Your task to perform on an android device: turn pop-ups on in chrome Image 0: 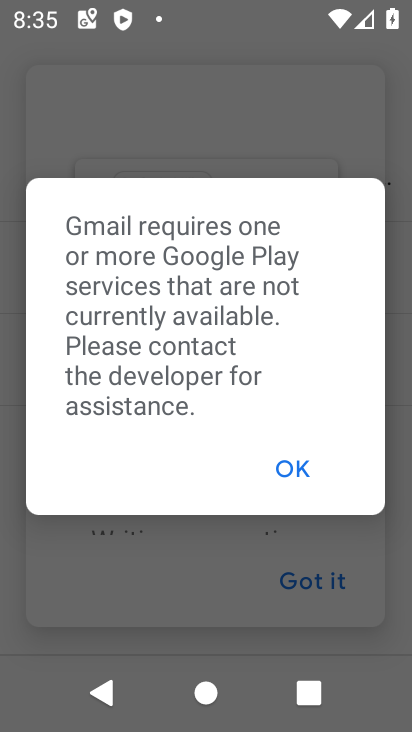
Step 0: press home button
Your task to perform on an android device: turn pop-ups on in chrome Image 1: 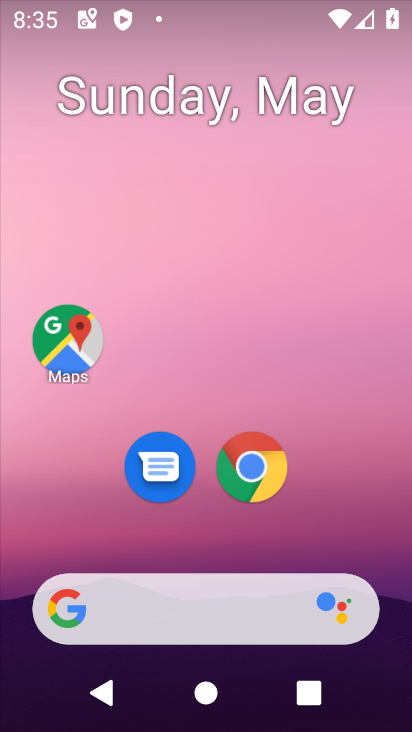
Step 1: click (255, 470)
Your task to perform on an android device: turn pop-ups on in chrome Image 2: 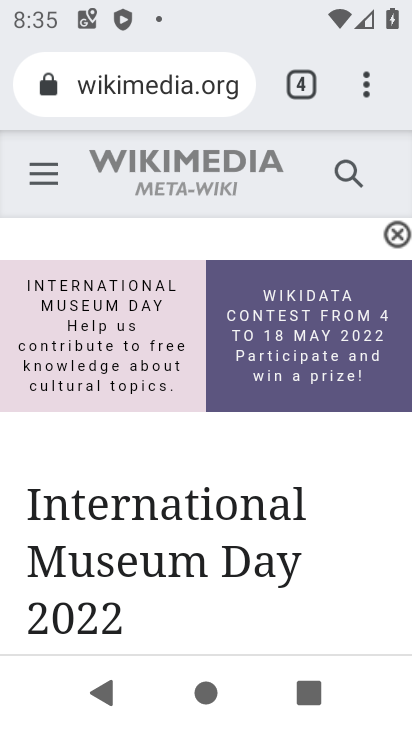
Step 2: click (362, 72)
Your task to perform on an android device: turn pop-ups on in chrome Image 3: 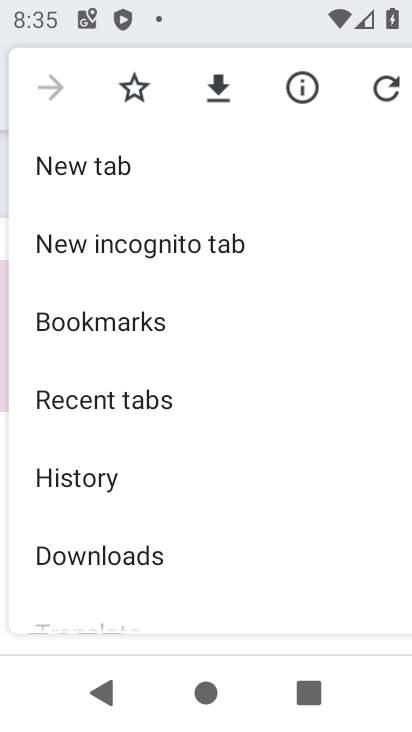
Step 3: drag from (71, 598) to (88, 107)
Your task to perform on an android device: turn pop-ups on in chrome Image 4: 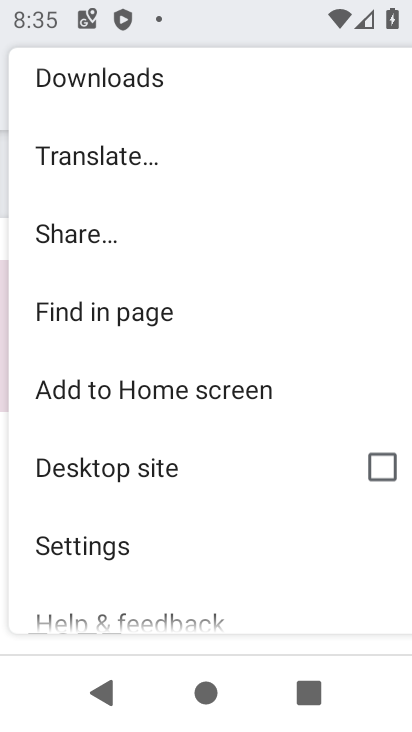
Step 4: click (101, 518)
Your task to perform on an android device: turn pop-ups on in chrome Image 5: 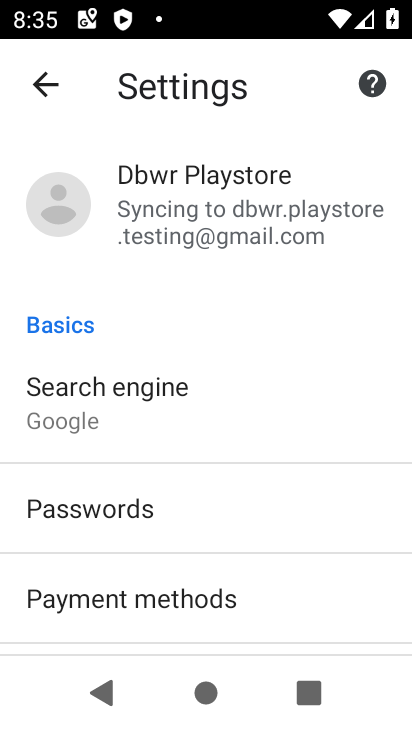
Step 5: drag from (101, 518) to (141, 270)
Your task to perform on an android device: turn pop-ups on in chrome Image 6: 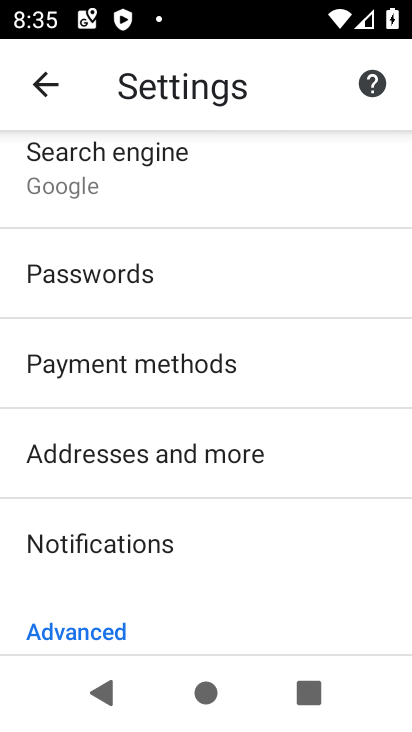
Step 6: drag from (142, 601) to (125, 220)
Your task to perform on an android device: turn pop-ups on in chrome Image 7: 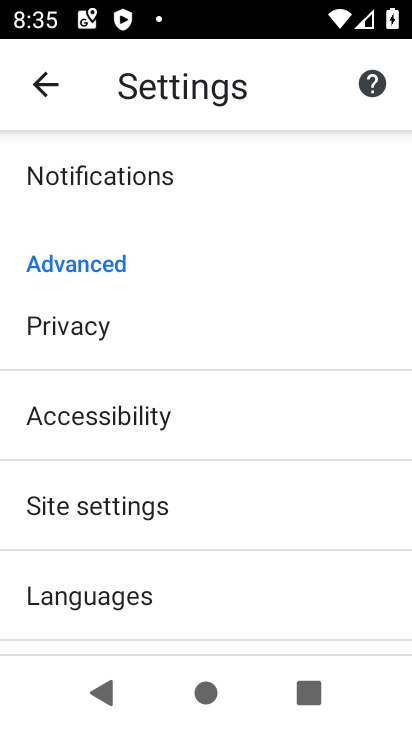
Step 7: click (168, 512)
Your task to perform on an android device: turn pop-ups on in chrome Image 8: 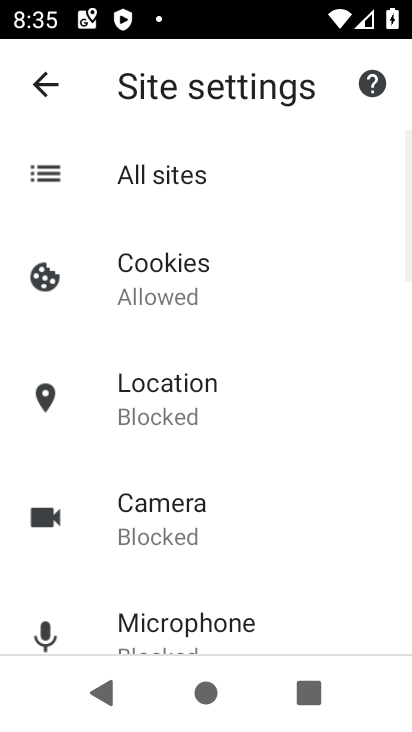
Step 8: drag from (177, 572) to (221, 204)
Your task to perform on an android device: turn pop-ups on in chrome Image 9: 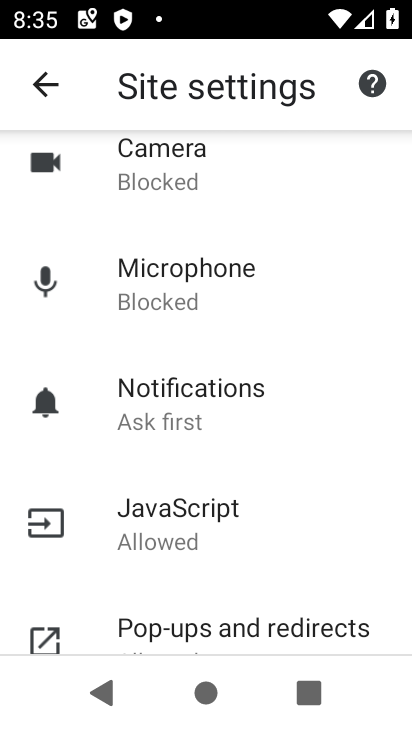
Step 9: click (148, 626)
Your task to perform on an android device: turn pop-ups on in chrome Image 10: 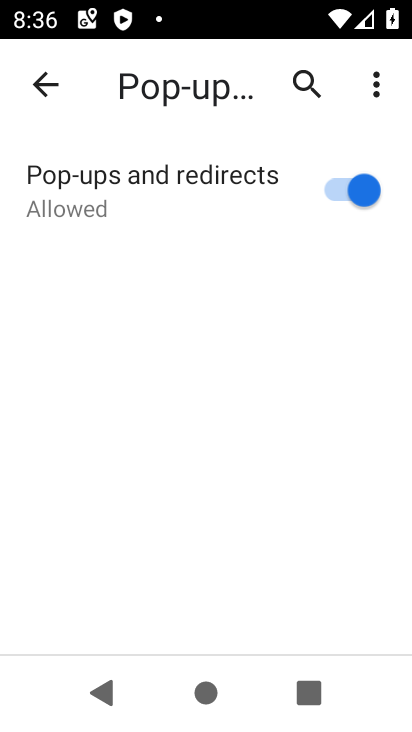
Step 10: task complete